Your task to perform on an android device: Go to network settings Image 0: 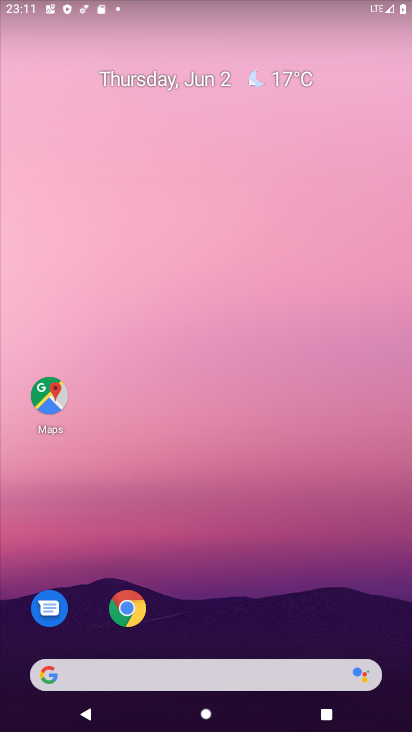
Step 0: drag from (276, 523) to (190, 27)
Your task to perform on an android device: Go to network settings Image 1: 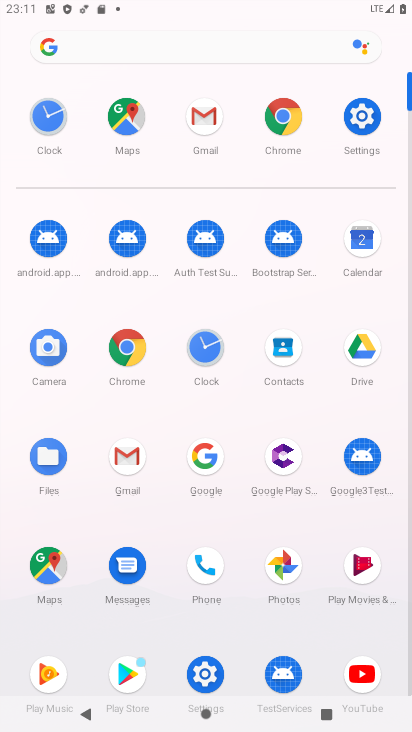
Step 1: click (359, 97)
Your task to perform on an android device: Go to network settings Image 2: 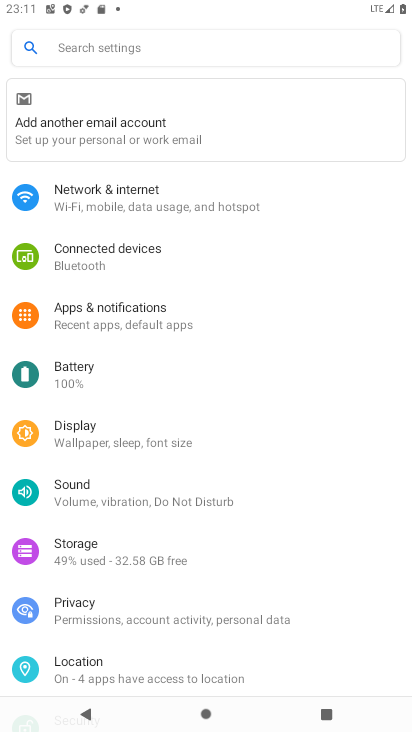
Step 2: click (161, 200)
Your task to perform on an android device: Go to network settings Image 3: 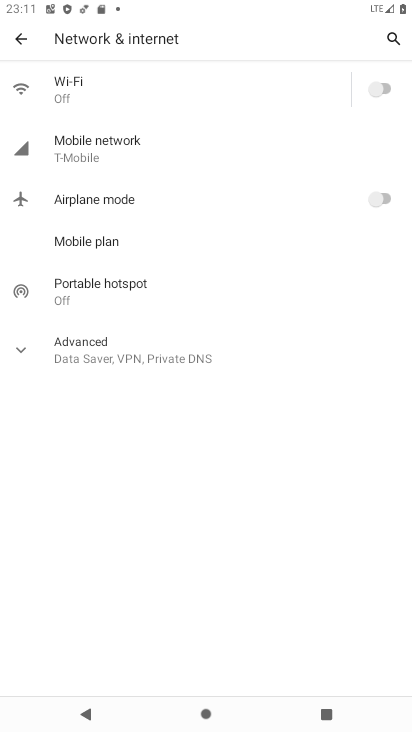
Step 3: task complete